Your task to perform on an android device: Open Youtube and go to the subscriptions tab Image 0: 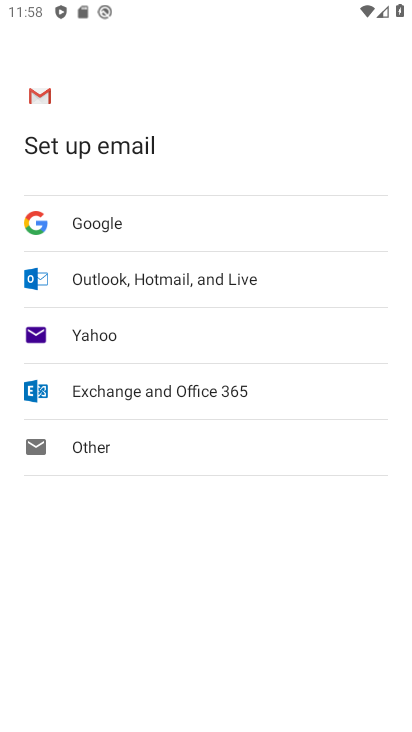
Step 0: press home button
Your task to perform on an android device: Open Youtube and go to the subscriptions tab Image 1: 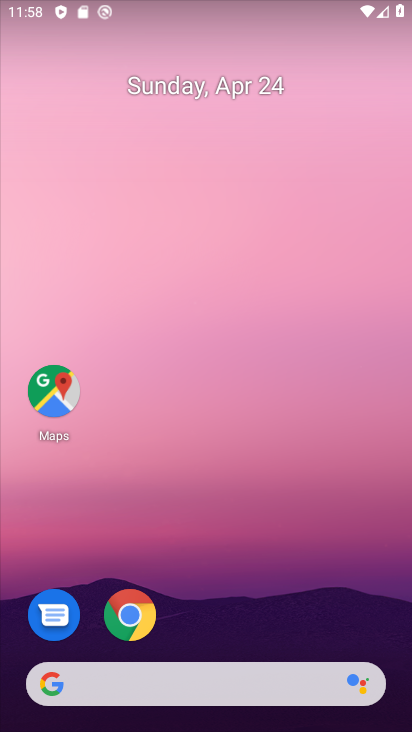
Step 1: drag from (343, 622) to (370, 87)
Your task to perform on an android device: Open Youtube and go to the subscriptions tab Image 2: 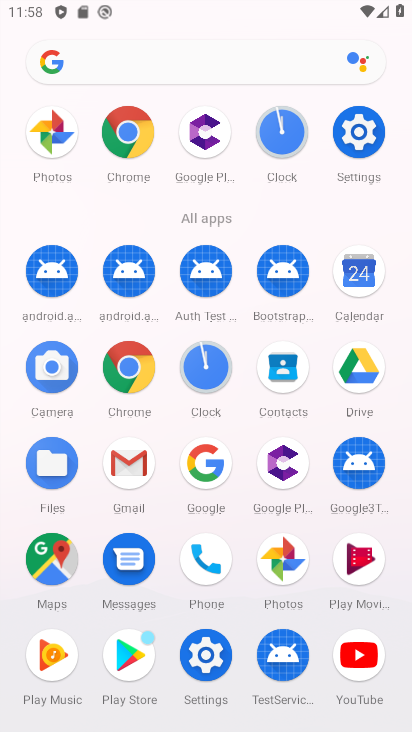
Step 2: click (361, 665)
Your task to perform on an android device: Open Youtube and go to the subscriptions tab Image 3: 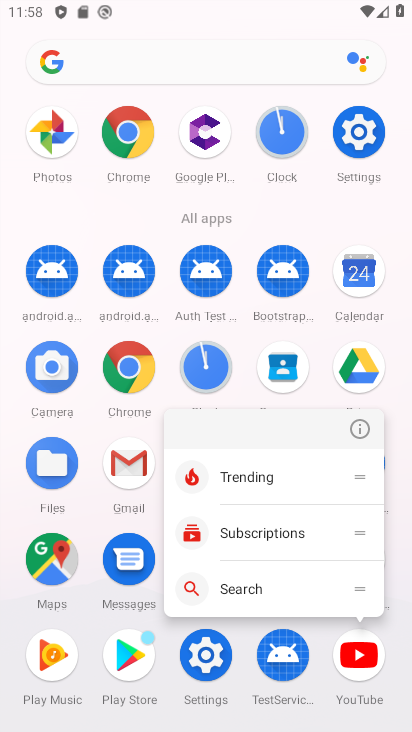
Step 3: click (360, 652)
Your task to perform on an android device: Open Youtube and go to the subscriptions tab Image 4: 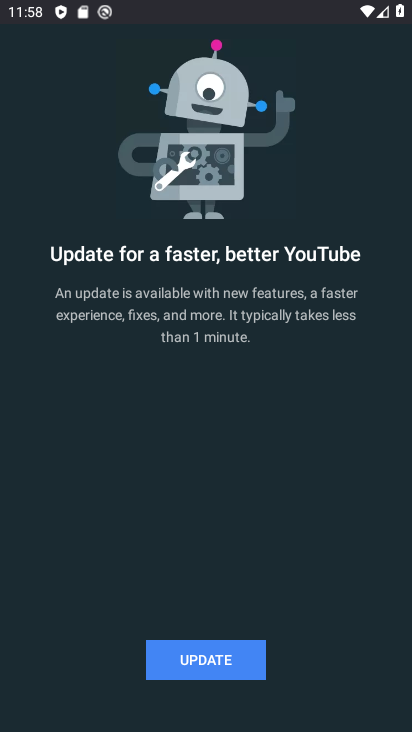
Step 4: click (261, 670)
Your task to perform on an android device: Open Youtube and go to the subscriptions tab Image 5: 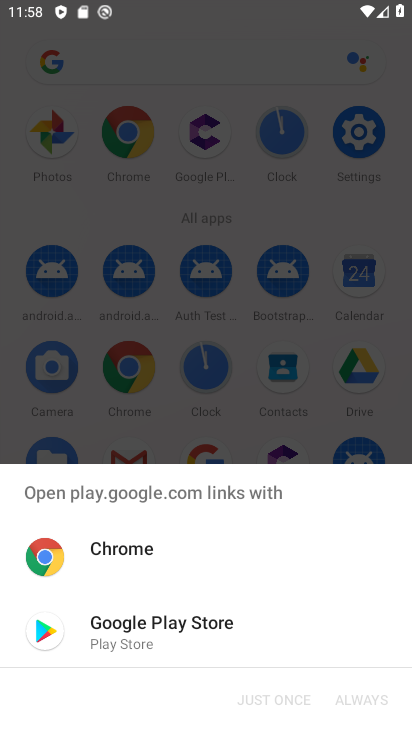
Step 5: click (200, 623)
Your task to perform on an android device: Open Youtube and go to the subscriptions tab Image 6: 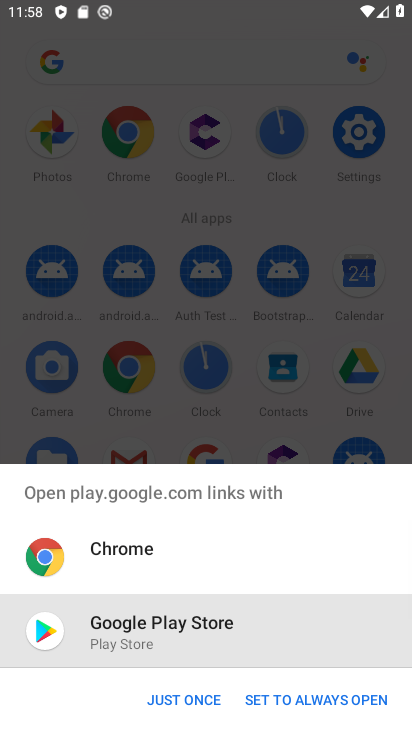
Step 6: click (202, 703)
Your task to perform on an android device: Open Youtube and go to the subscriptions tab Image 7: 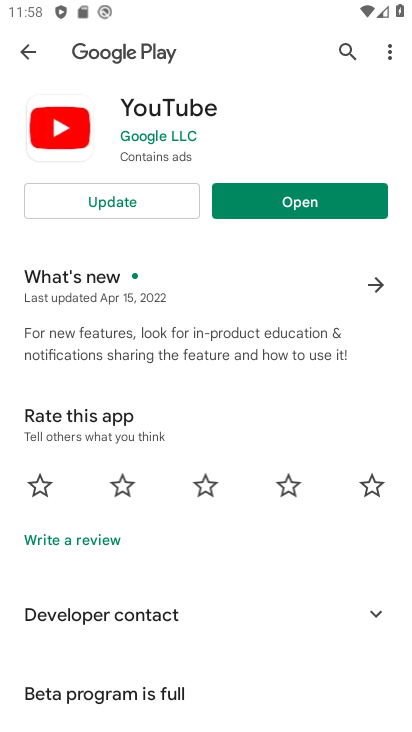
Step 7: click (111, 203)
Your task to perform on an android device: Open Youtube and go to the subscriptions tab Image 8: 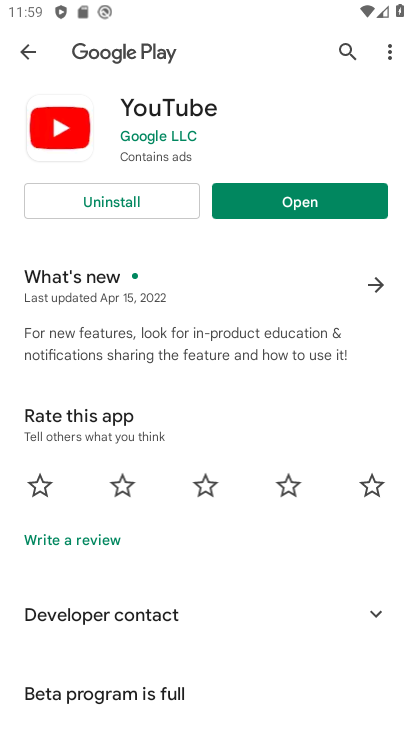
Step 8: click (259, 217)
Your task to perform on an android device: Open Youtube and go to the subscriptions tab Image 9: 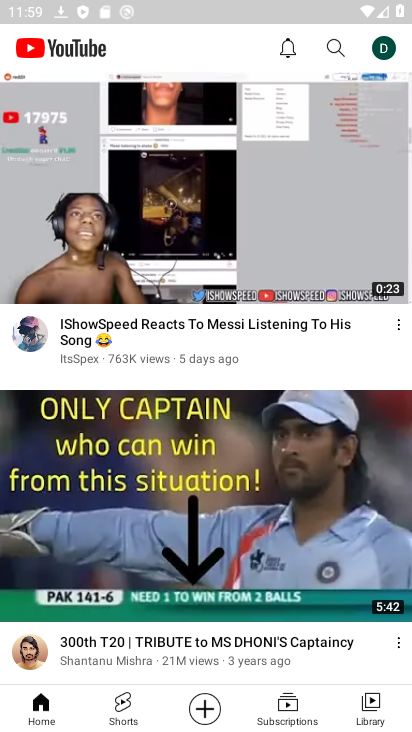
Step 9: click (287, 708)
Your task to perform on an android device: Open Youtube and go to the subscriptions tab Image 10: 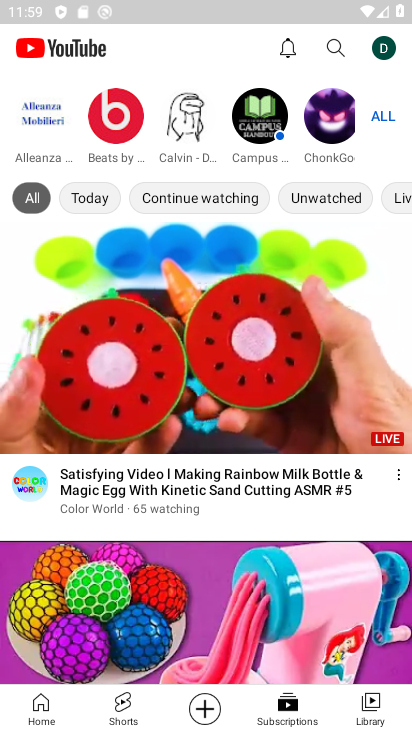
Step 10: task complete